Your task to perform on an android device: check out phone information Image 0: 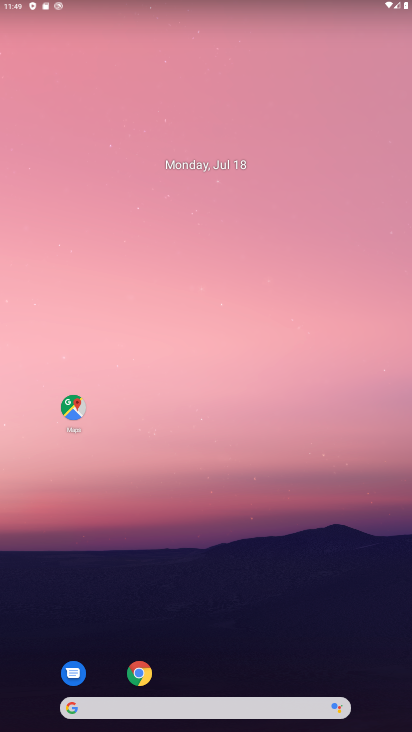
Step 0: drag from (215, 673) to (262, 23)
Your task to perform on an android device: check out phone information Image 1: 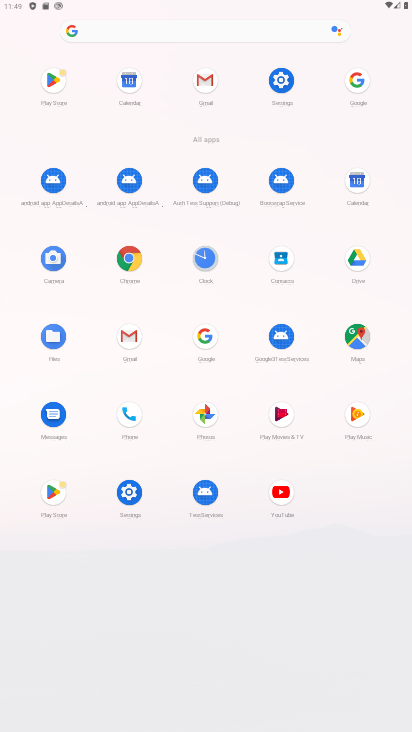
Step 1: click (285, 83)
Your task to perform on an android device: check out phone information Image 2: 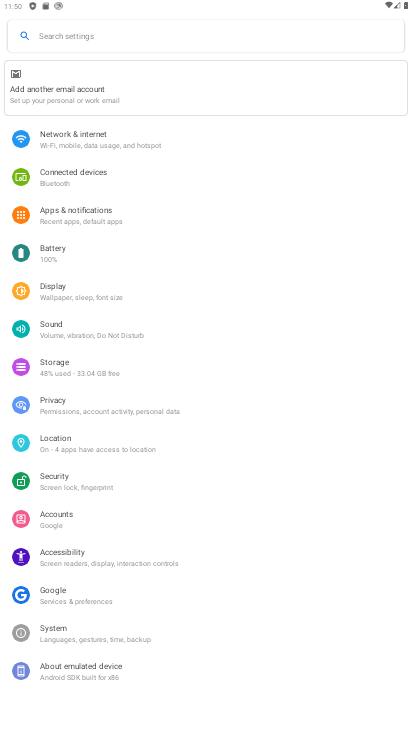
Step 2: click (75, 665)
Your task to perform on an android device: check out phone information Image 3: 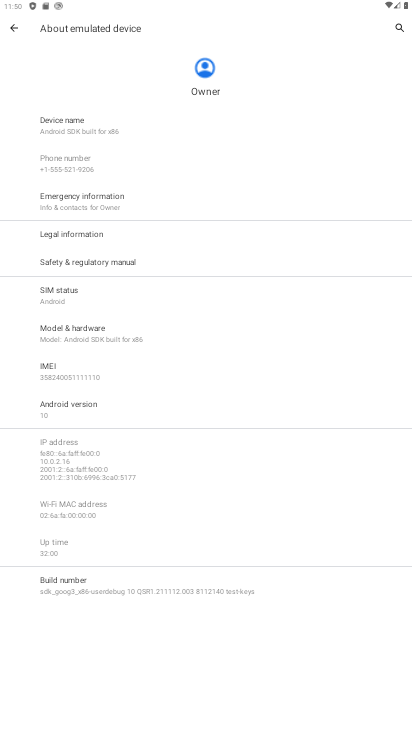
Step 3: task complete